Your task to perform on an android device: Open Wikipedia Image 0: 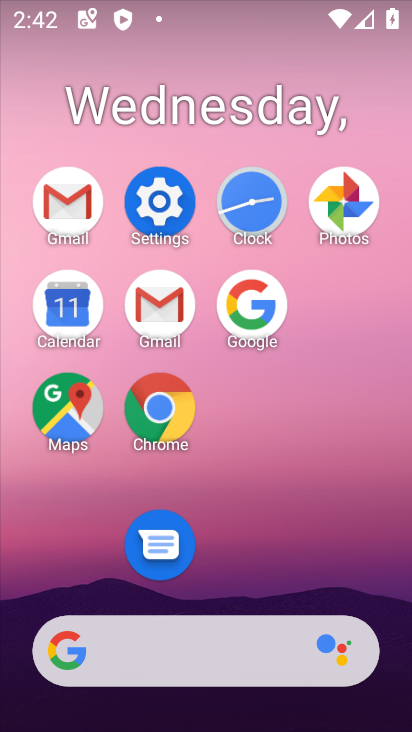
Step 0: click (179, 427)
Your task to perform on an android device: Open Wikipedia Image 1: 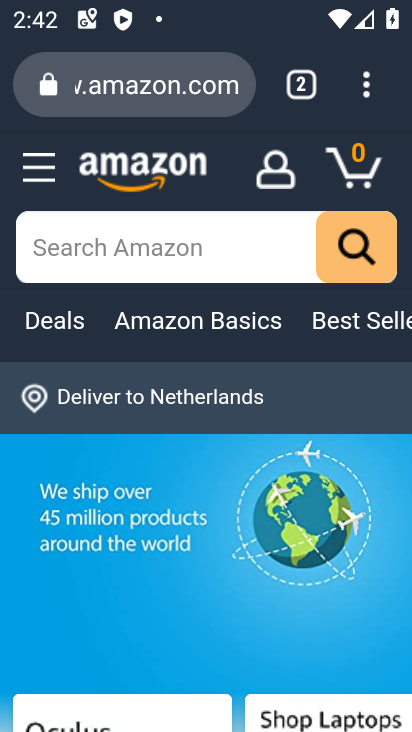
Step 1: click (305, 84)
Your task to perform on an android device: Open Wikipedia Image 2: 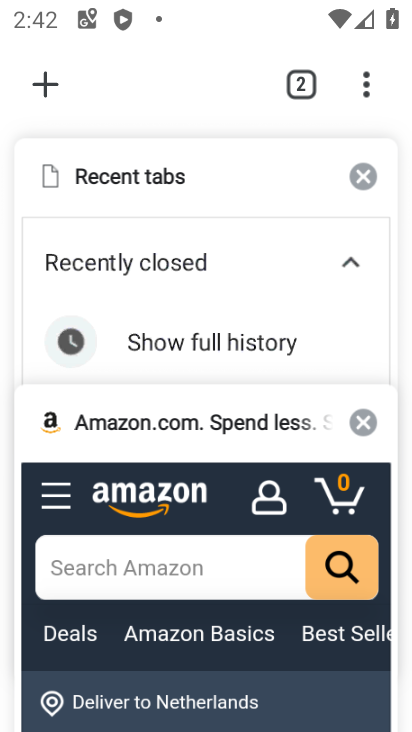
Step 2: click (67, 88)
Your task to perform on an android device: Open Wikipedia Image 3: 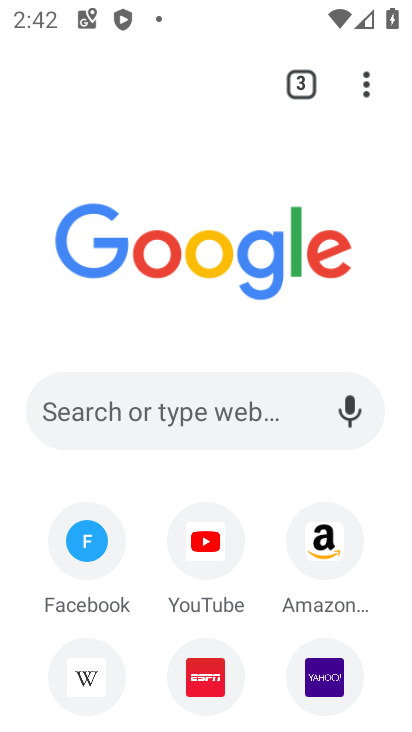
Step 3: click (106, 665)
Your task to perform on an android device: Open Wikipedia Image 4: 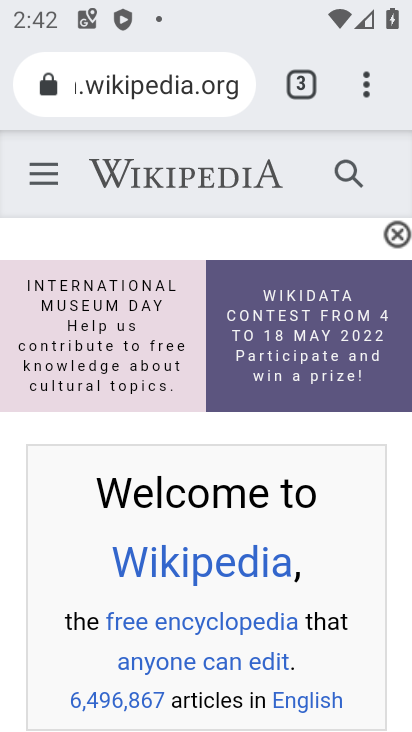
Step 4: task complete